Your task to perform on an android device: Go to ESPN.com Image 0: 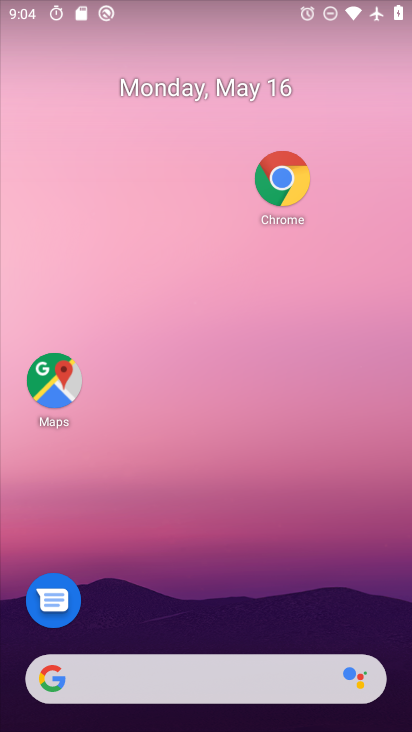
Step 0: click (284, 175)
Your task to perform on an android device: Go to ESPN.com Image 1: 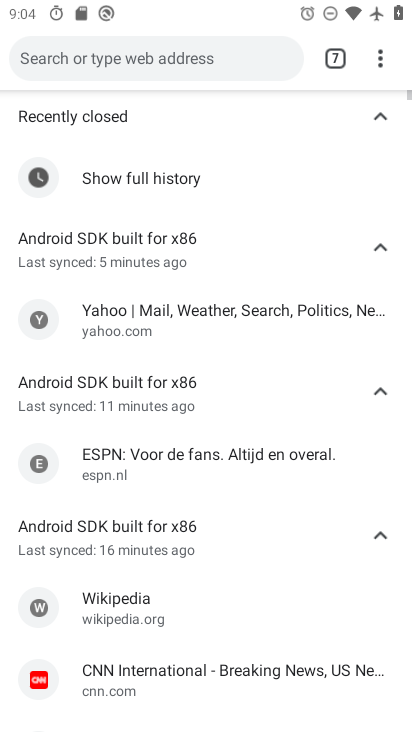
Step 1: drag from (376, 61) to (262, 122)
Your task to perform on an android device: Go to ESPN.com Image 2: 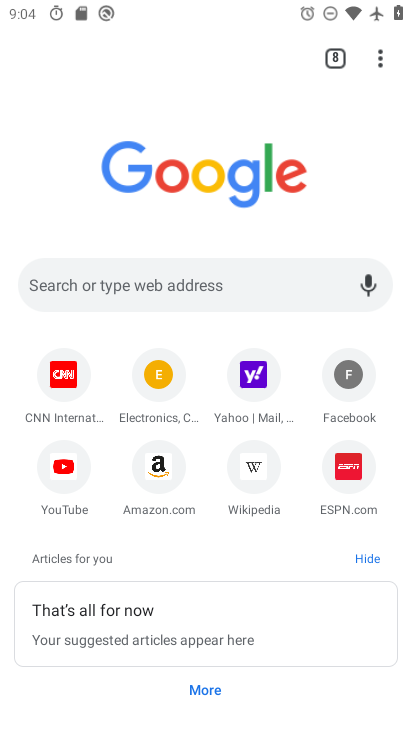
Step 2: click (343, 469)
Your task to perform on an android device: Go to ESPN.com Image 3: 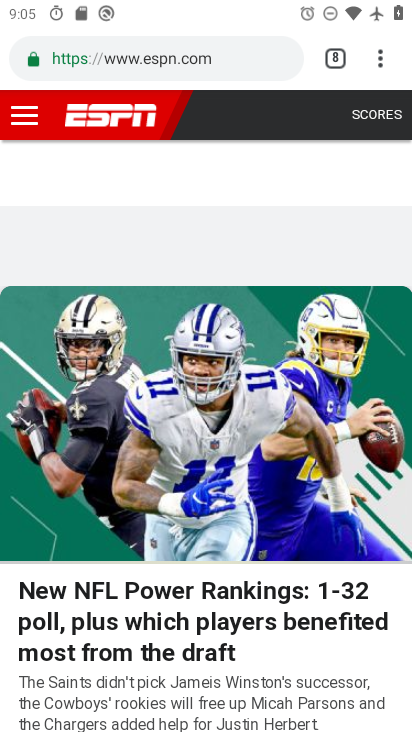
Step 3: task complete